Your task to perform on an android device: When is my next meeting? Image 0: 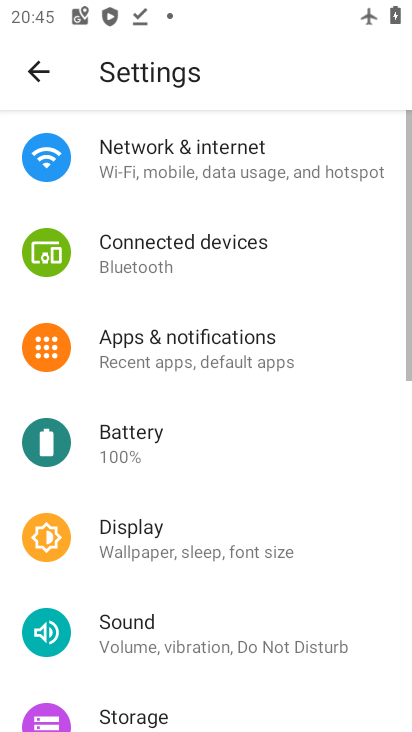
Step 0: click (205, 169)
Your task to perform on an android device: When is my next meeting? Image 1: 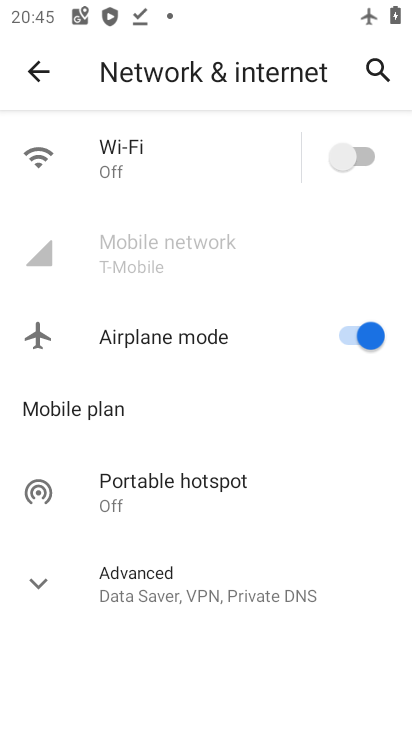
Step 1: click (342, 139)
Your task to perform on an android device: When is my next meeting? Image 2: 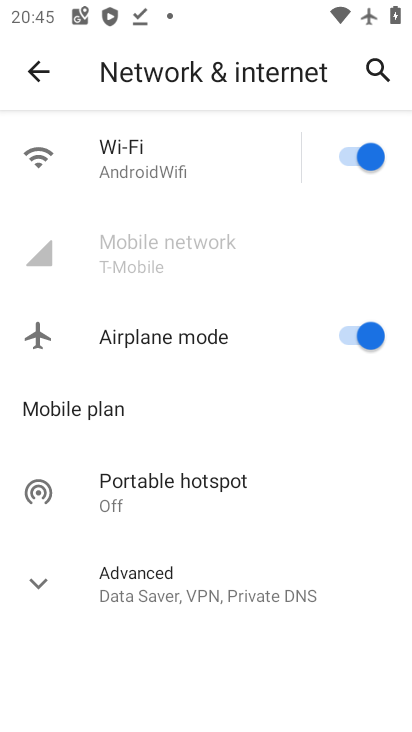
Step 2: click (379, 338)
Your task to perform on an android device: When is my next meeting? Image 3: 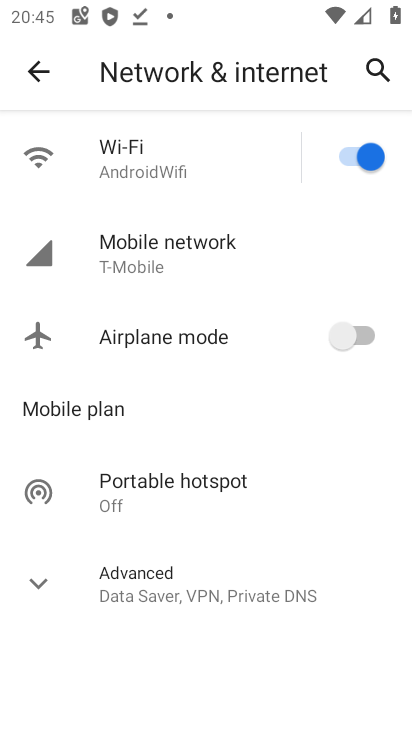
Step 3: task complete